Your task to perform on an android device: Clear the cart on amazon. Search for razer kraken on amazon, select the first entry, add it to the cart, then select checkout. Image 0: 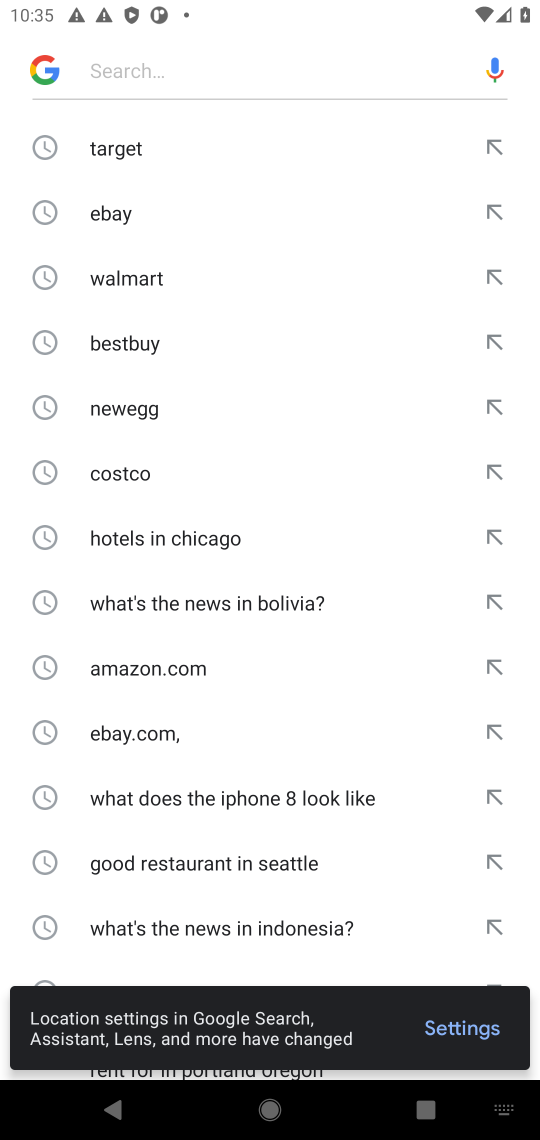
Step 0: press home button
Your task to perform on an android device: Clear the cart on amazon. Search for razer kraken on amazon, select the first entry, add it to the cart, then select checkout. Image 1: 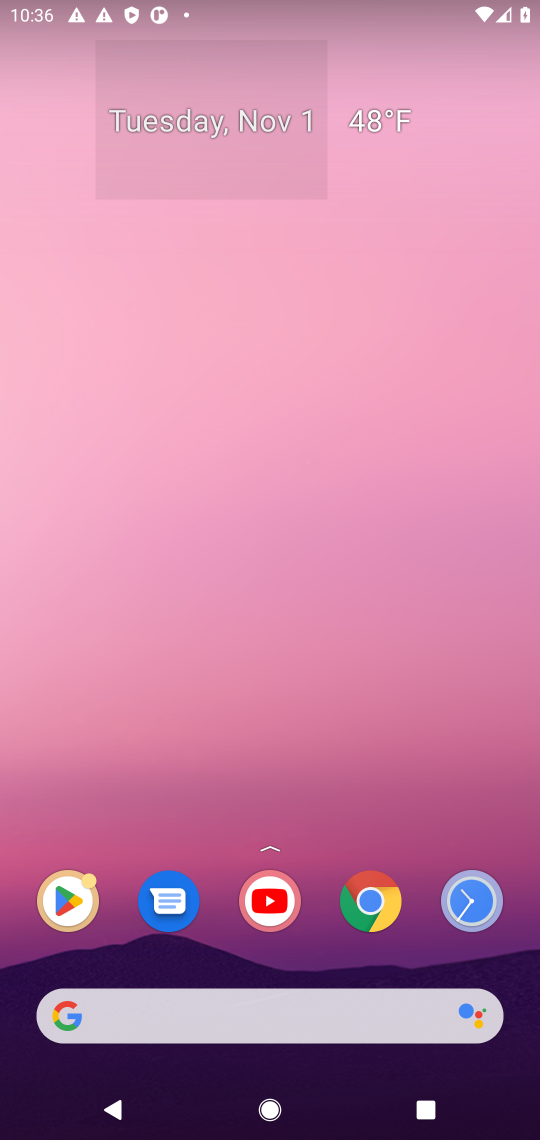
Step 1: drag from (339, 942) to (445, 120)
Your task to perform on an android device: Clear the cart on amazon. Search for razer kraken on amazon, select the first entry, add it to the cart, then select checkout. Image 2: 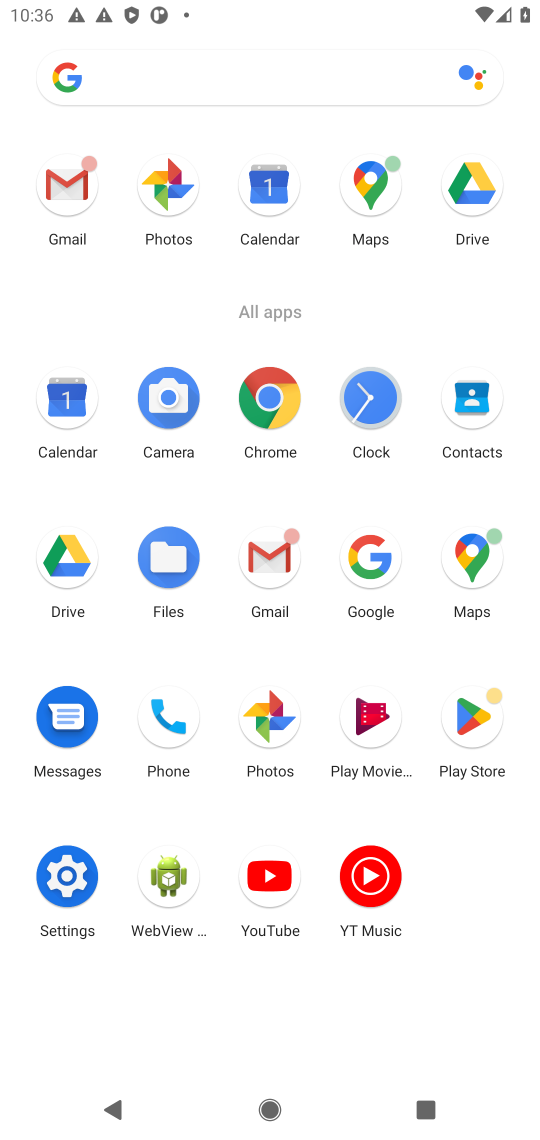
Step 2: click (264, 398)
Your task to perform on an android device: Clear the cart on amazon. Search for razer kraken on amazon, select the first entry, add it to the cart, then select checkout. Image 3: 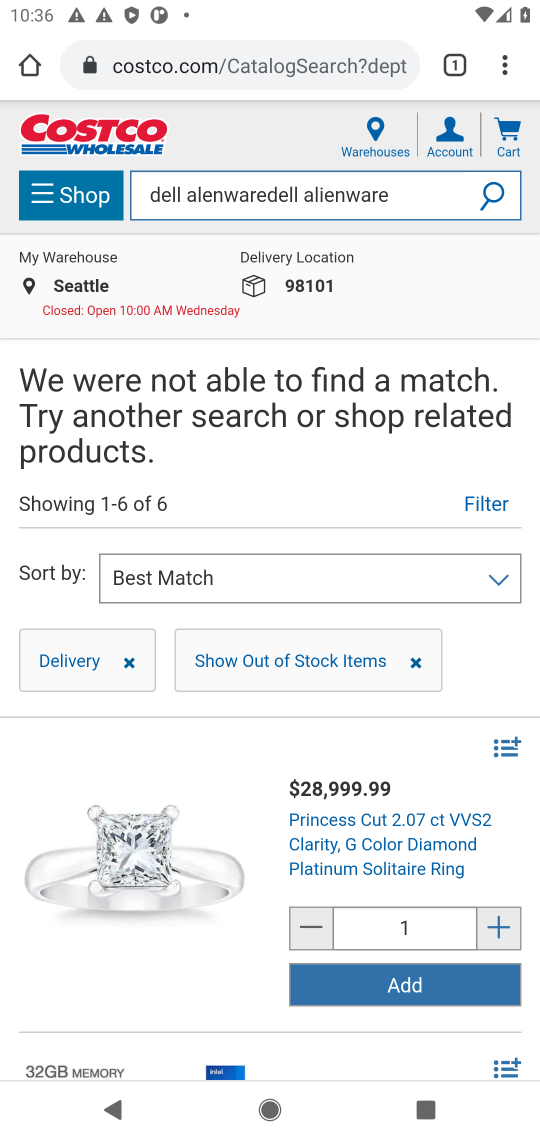
Step 3: click (305, 61)
Your task to perform on an android device: Clear the cart on amazon. Search for razer kraken on amazon, select the first entry, add it to the cart, then select checkout. Image 4: 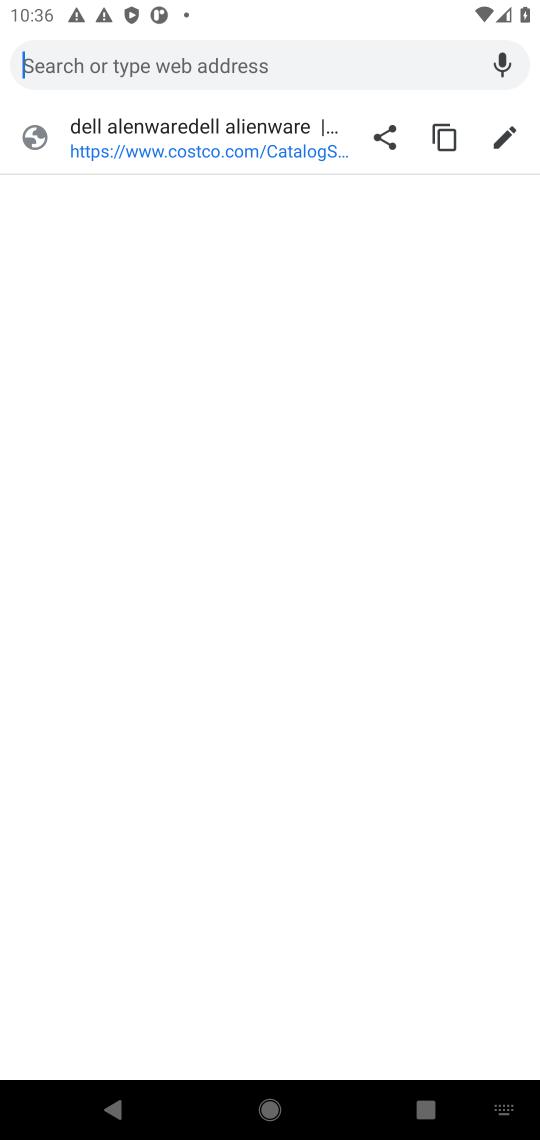
Step 4: type "amazon.com"
Your task to perform on an android device: Clear the cart on amazon. Search for razer kraken on amazon, select the first entry, add it to the cart, then select checkout. Image 5: 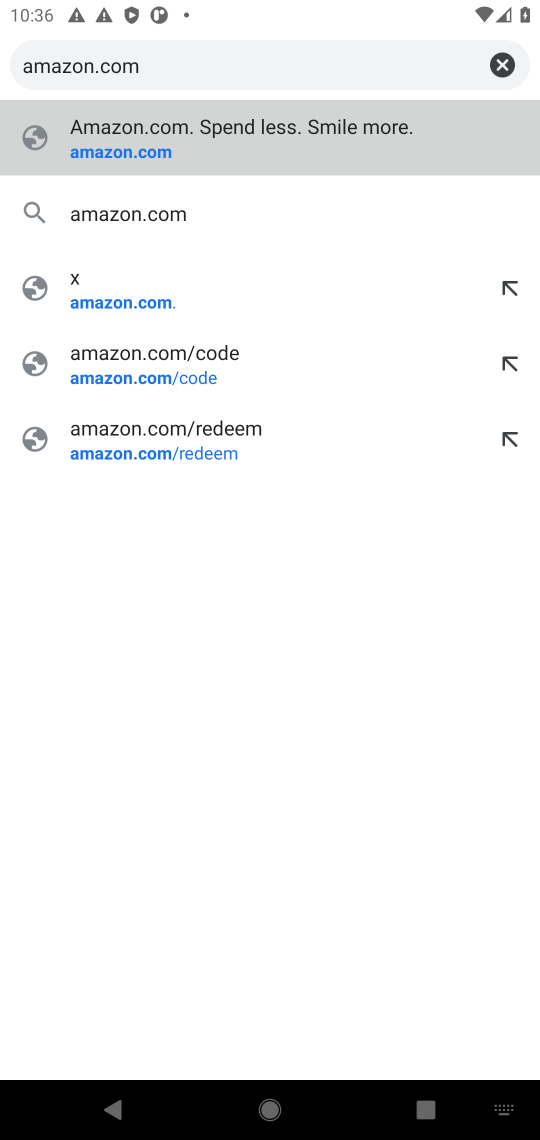
Step 5: press enter
Your task to perform on an android device: Clear the cart on amazon. Search for razer kraken on amazon, select the first entry, add it to the cart, then select checkout. Image 6: 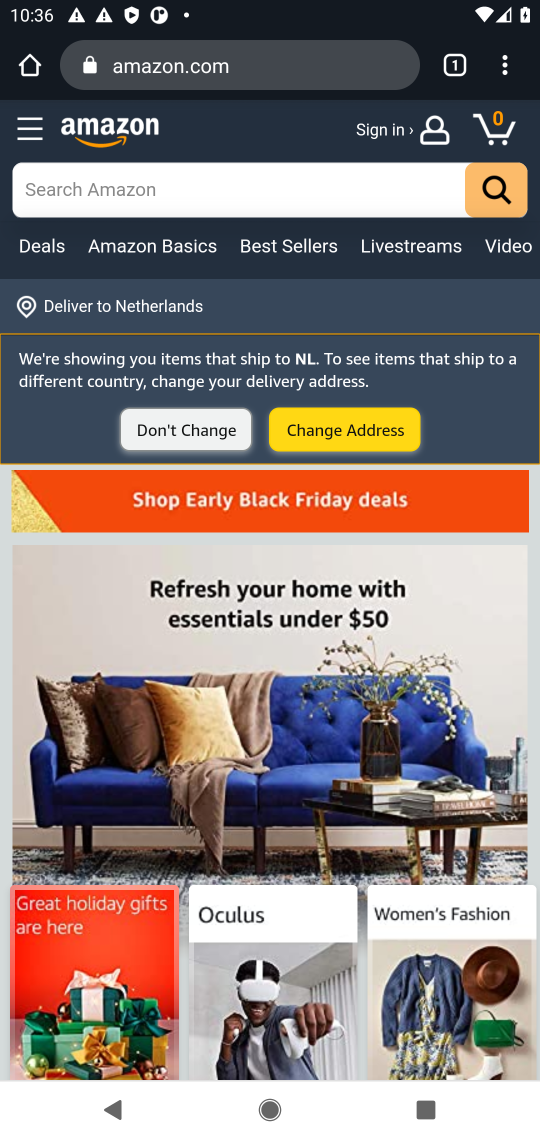
Step 6: click (505, 128)
Your task to perform on an android device: Clear the cart on amazon. Search for razer kraken on amazon, select the first entry, add it to the cart, then select checkout. Image 7: 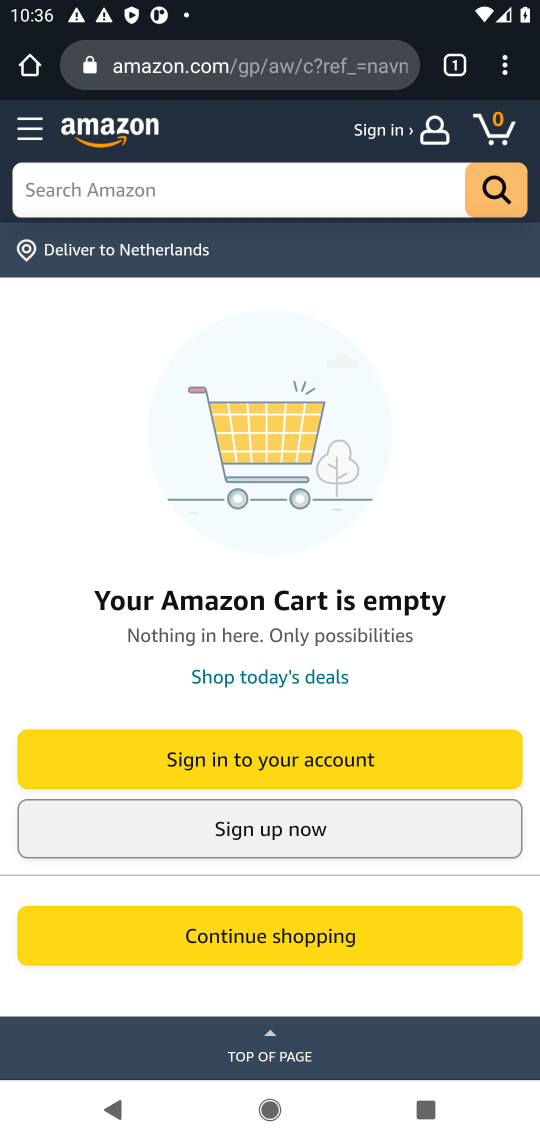
Step 7: click (334, 197)
Your task to perform on an android device: Clear the cart on amazon. Search for razer kraken on amazon, select the first entry, add it to the cart, then select checkout. Image 8: 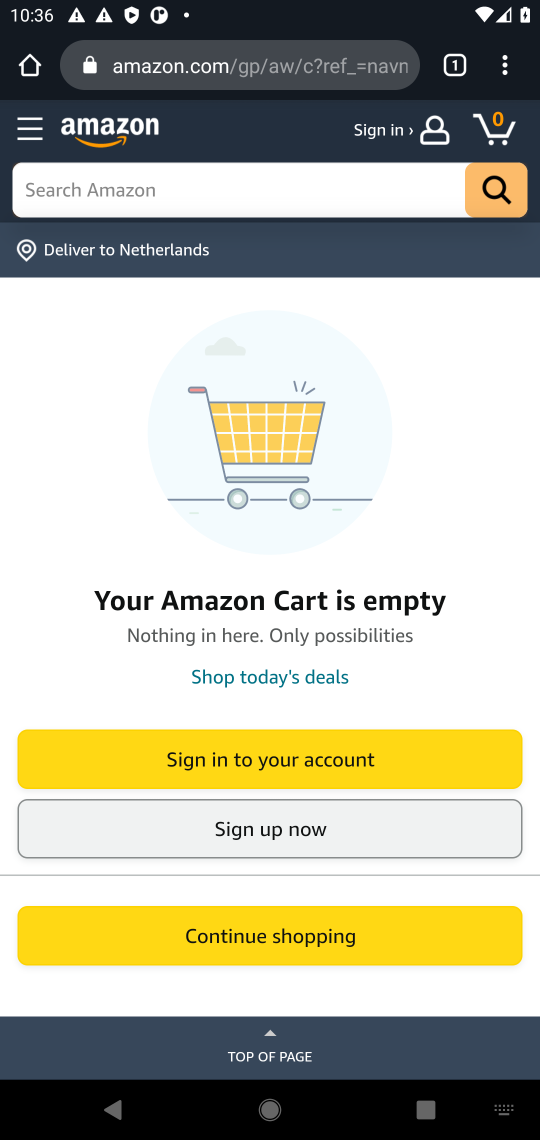
Step 8: type "razer kraken"
Your task to perform on an android device: Clear the cart on amazon. Search for razer kraken on amazon, select the first entry, add it to the cart, then select checkout. Image 9: 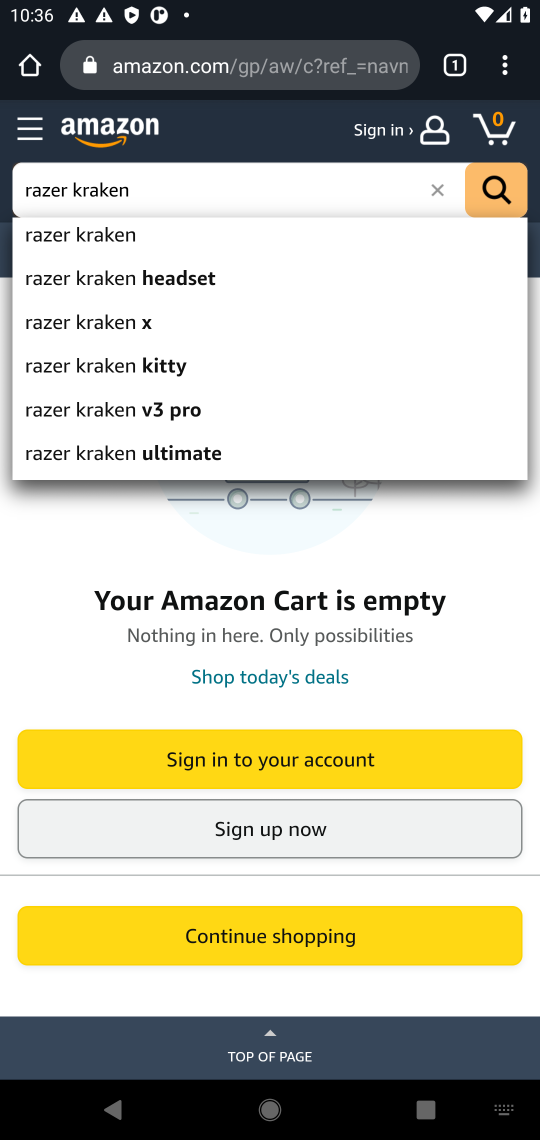
Step 9: press enter
Your task to perform on an android device: Clear the cart on amazon. Search for razer kraken on amazon, select the first entry, add it to the cart, then select checkout. Image 10: 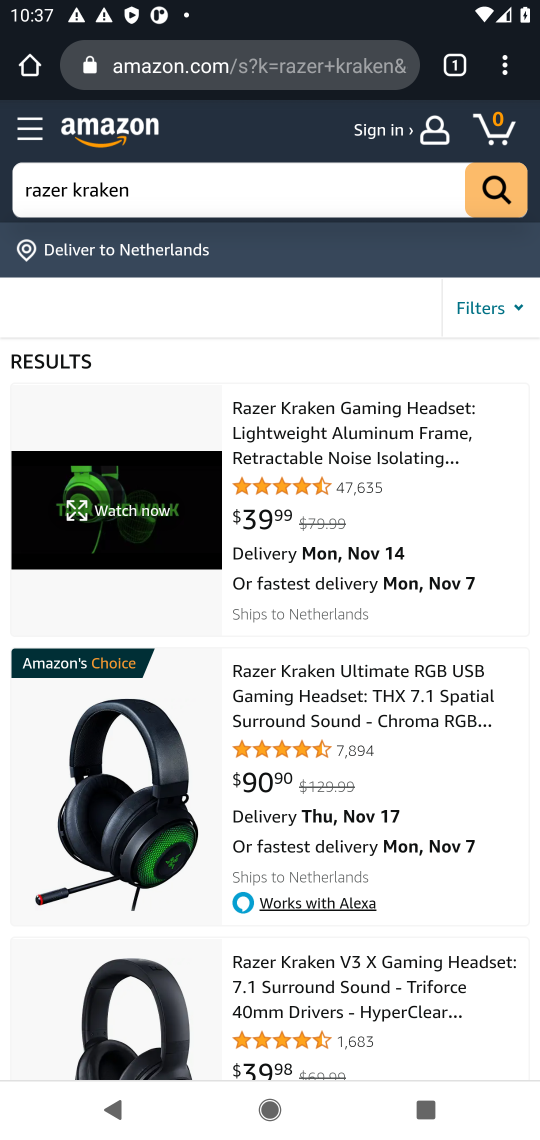
Step 10: click (348, 454)
Your task to perform on an android device: Clear the cart on amazon. Search for razer kraken on amazon, select the first entry, add it to the cart, then select checkout. Image 11: 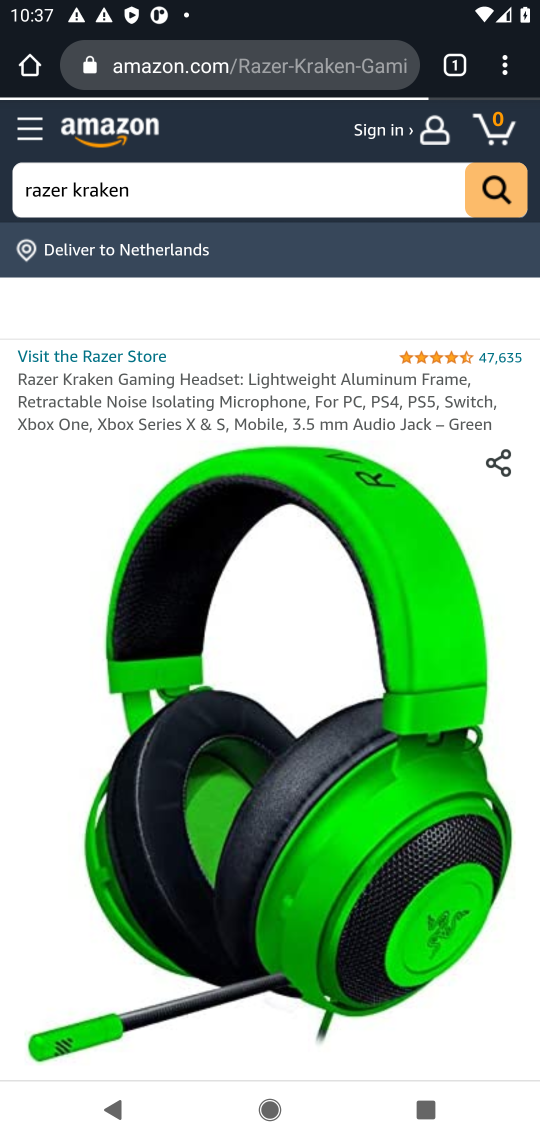
Step 11: drag from (305, 801) to (344, 136)
Your task to perform on an android device: Clear the cart on amazon. Search for razer kraken on amazon, select the first entry, add it to the cart, then select checkout. Image 12: 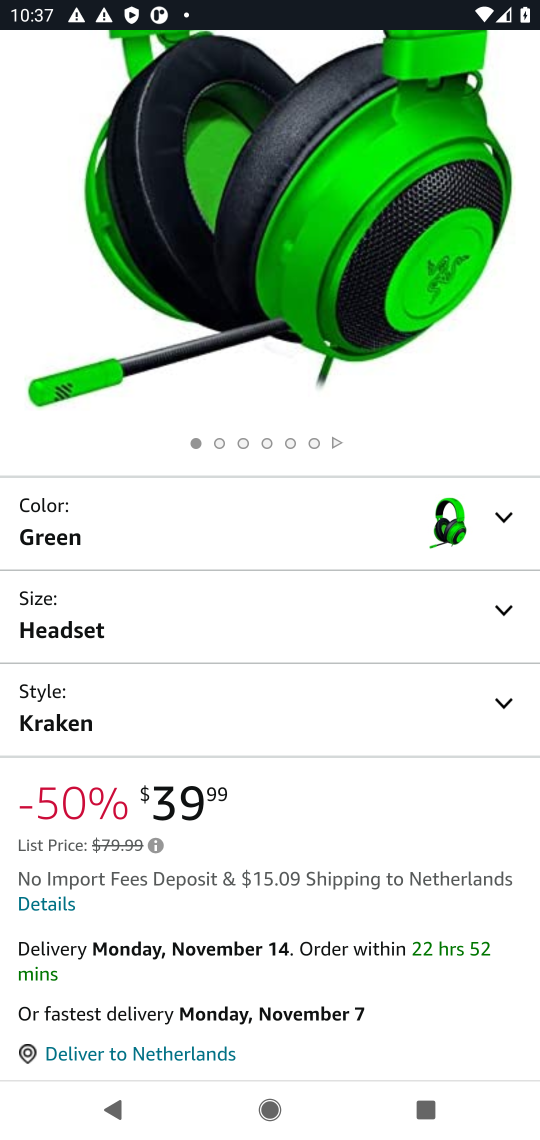
Step 12: drag from (314, 924) to (386, 210)
Your task to perform on an android device: Clear the cart on amazon. Search for razer kraken on amazon, select the first entry, add it to the cart, then select checkout. Image 13: 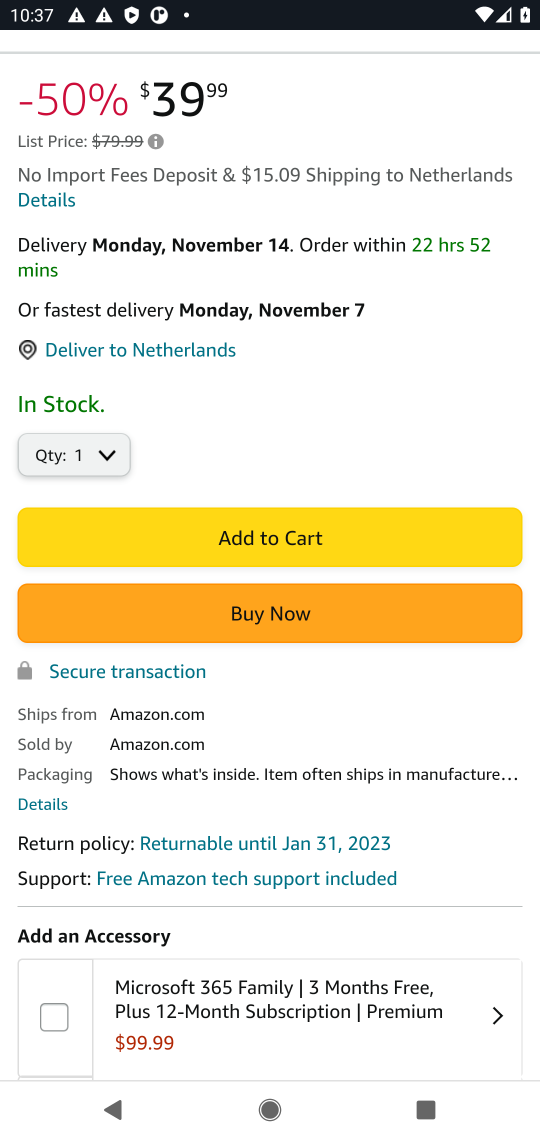
Step 13: click (324, 542)
Your task to perform on an android device: Clear the cart on amazon. Search for razer kraken on amazon, select the first entry, add it to the cart, then select checkout. Image 14: 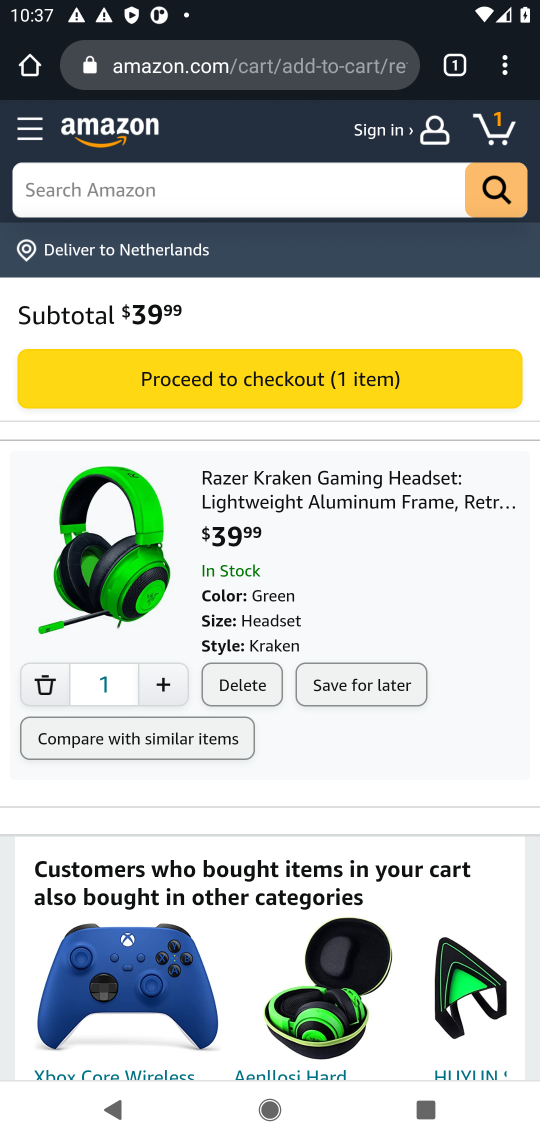
Step 14: click (320, 375)
Your task to perform on an android device: Clear the cart on amazon. Search for razer kraken on amazon, select the first entry, add it to the cart, then select checkout. Image 15: 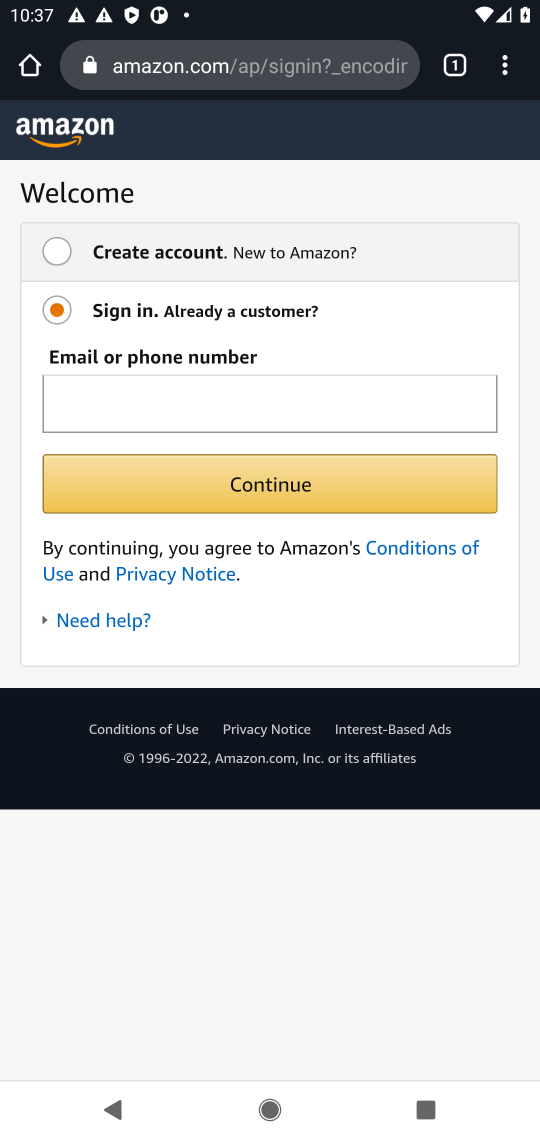
Step 15: task complete